Your task to perform on an android device: Go to network settings Image 0: 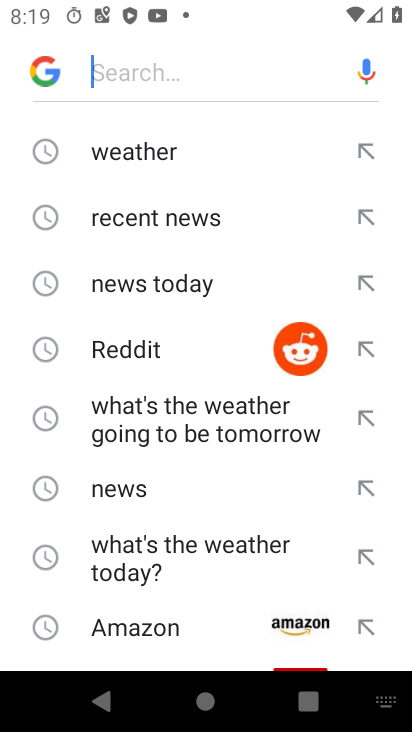
Step 0: press home button
Your task to perform on an android device: Go to network settings Image 1: 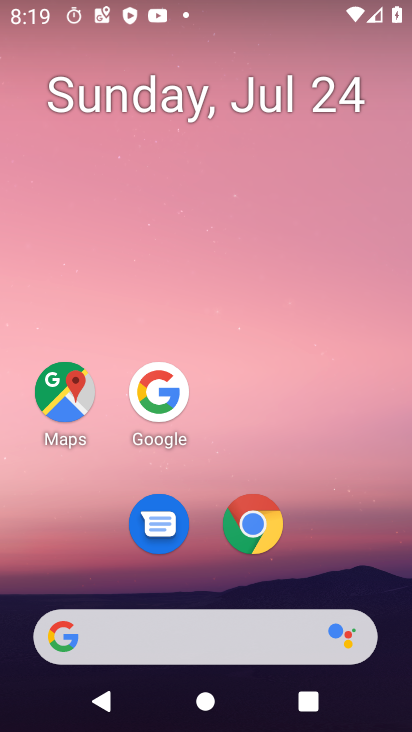
Step 1: drag from (190, 643) to (248, 95)
Your task to perform on an android device: Go to network settings Image 2: 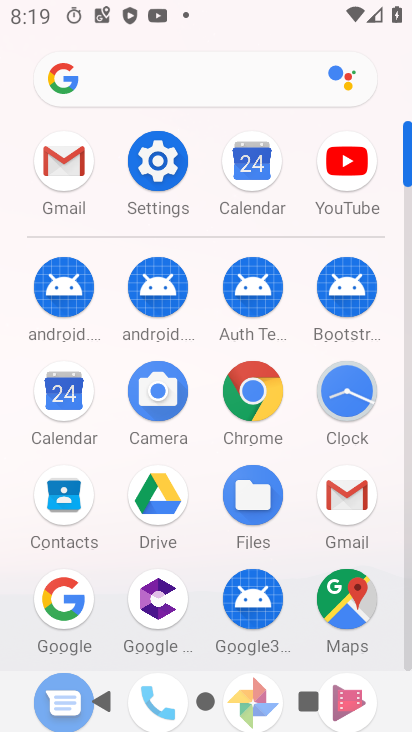
Step 2: click (152, 169)
Your task to perform on an android device: Go to network settings Image 3: 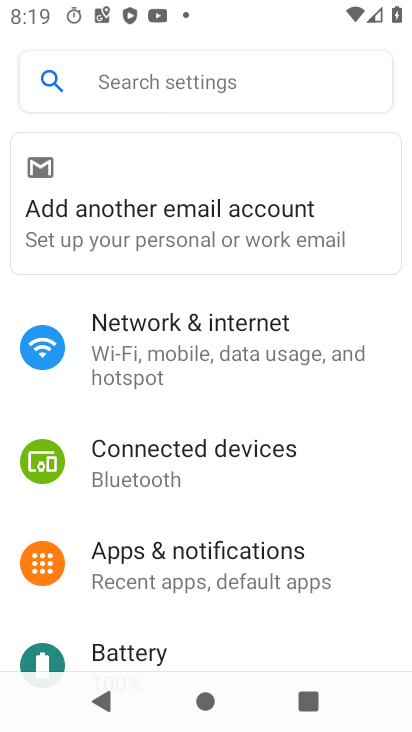
Step 3: click (202, 347)
Your task to perform on an android device: Go to network settings Image 4: 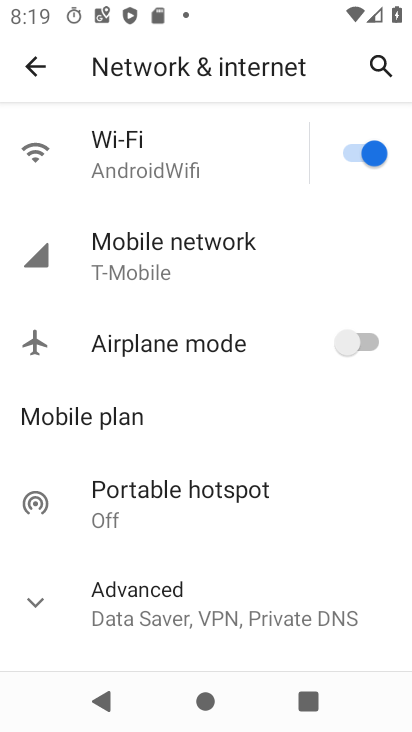
Step 4: task complete